Your task to perform on an android device: open chrome privacy settings Image 0: 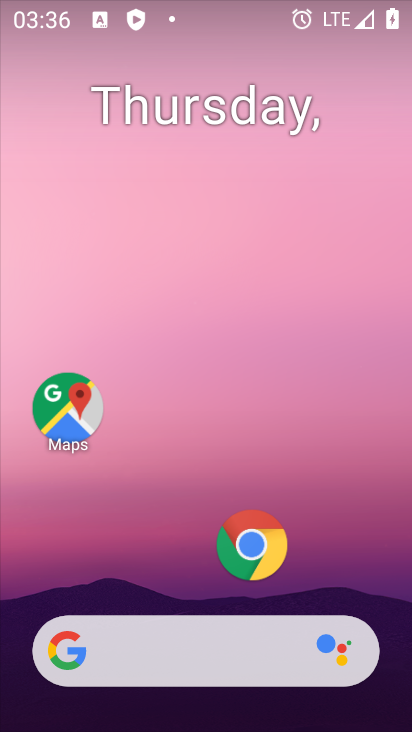
Step 0: drag from (256, 587) to (289, 8)
Your task to perform on an android device: open chrome privacy settings Image 1: 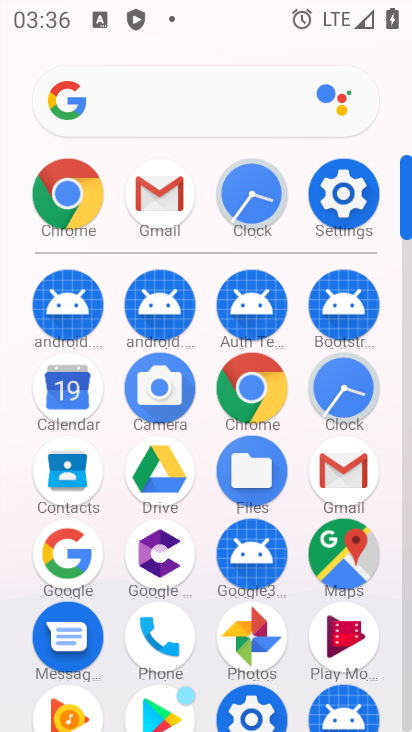
Step 1: click (266, 399)
Your task to perform on an android device: open chrome privacy settings Image 2: 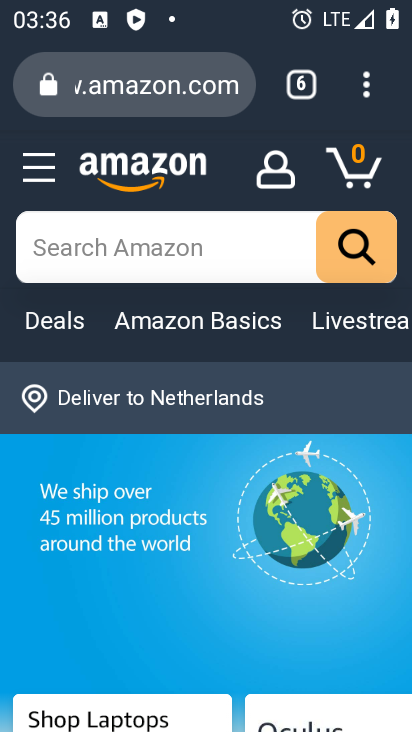
Step 2: click (371, 81)
Your task to perform on an android device: open chrome privacy settings Image 3: 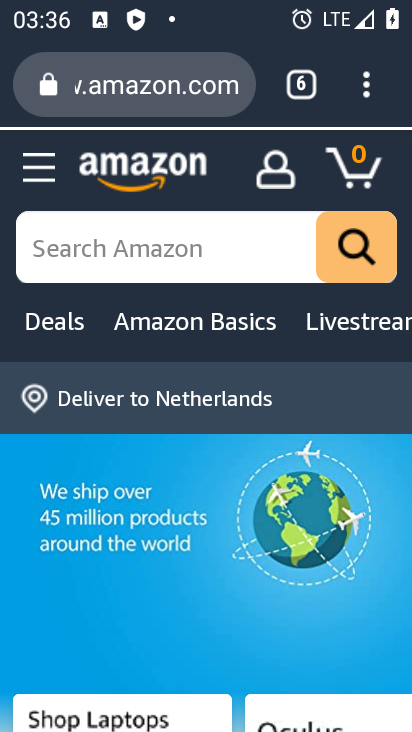
Step 3: drag from (365, 89) to (174, 703)
Your task to perform on an android device: open chrome privacy settings Image 4: 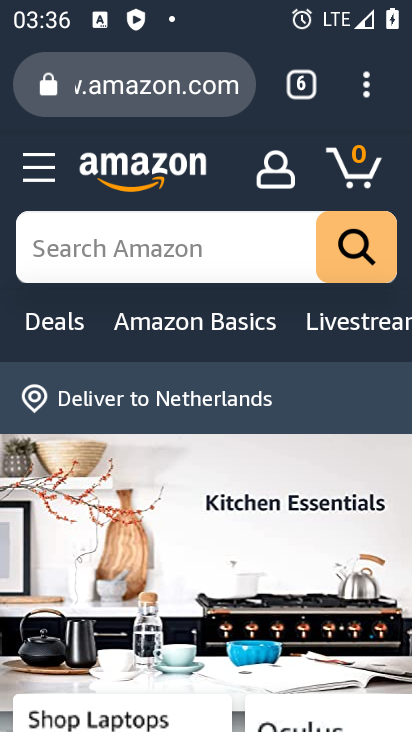
Step 4: click (157, 592)
Your task to perform on an android device: open chrome privacy settings Image 5: 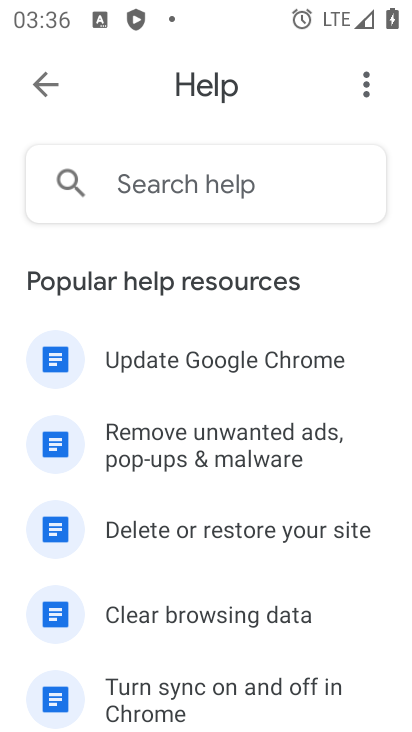
Step 5: press back button
Your task to perform on an android device: open chrome privacy settings Image 6: 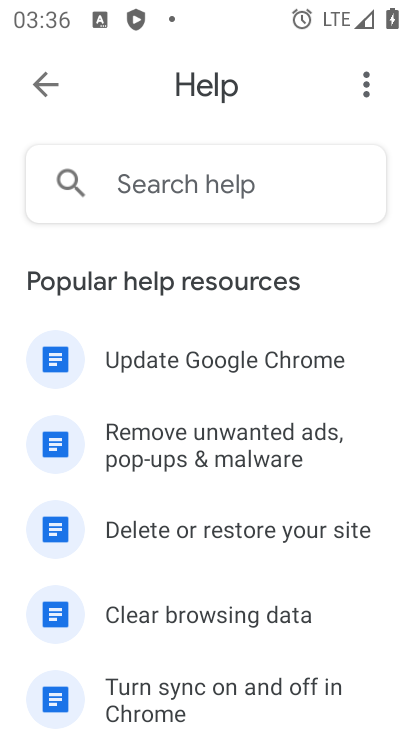
Step 6: press back button
Your task to perform on an android device: open chrome privacy settings Image 7: 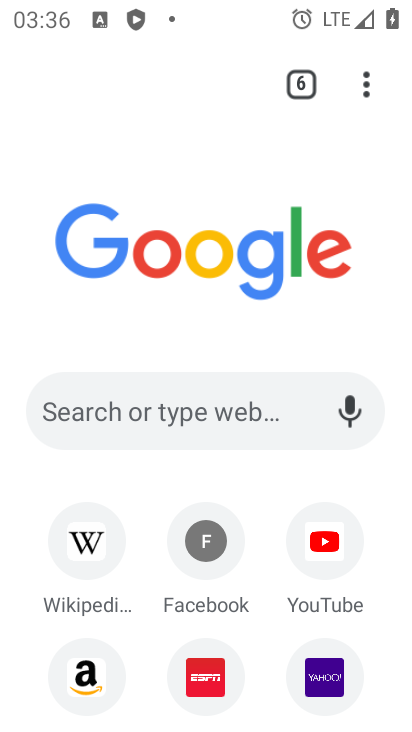
Step 7: drag from (365, 85) to (153, 601)
Your task to perform on an android device: open chrome privacy settings Image 8: 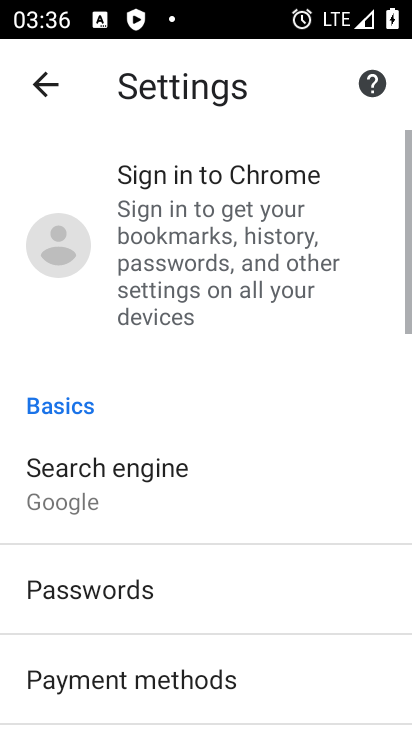
Step 8: drag from (156, 610) to (367, 0)
Your task to perform on an android device: open chrome privacy settings Image 9: 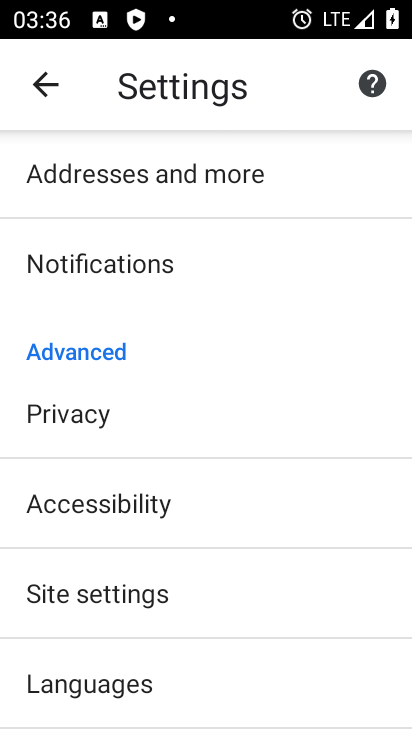
Step 9: click (152, 418)
Your task to perform on an android device: open chrome privacy settings Image 10: 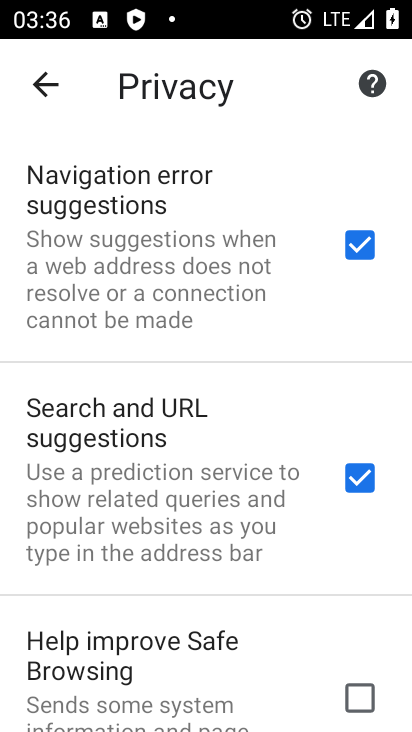
Step 10: task complete